Your task to perform on an android device: open the mobile data screen to see how much data has been used Image 0: 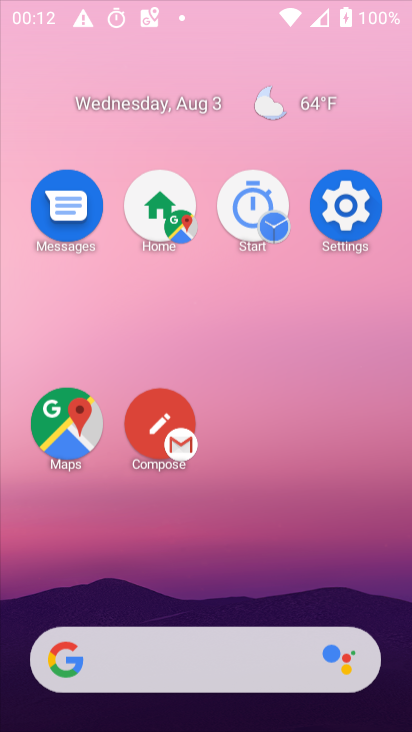
Step 0: click (232, 133)
Your task to perform on an android device: open the mobile data screen to see how much data has been used Image 1: 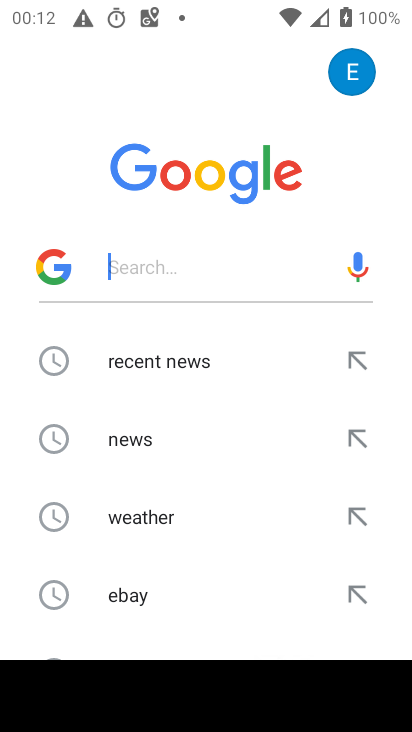
Step 1: press back button
Your task to perform on an android device: open the mobile data screen to see how much data has been used Image 2: 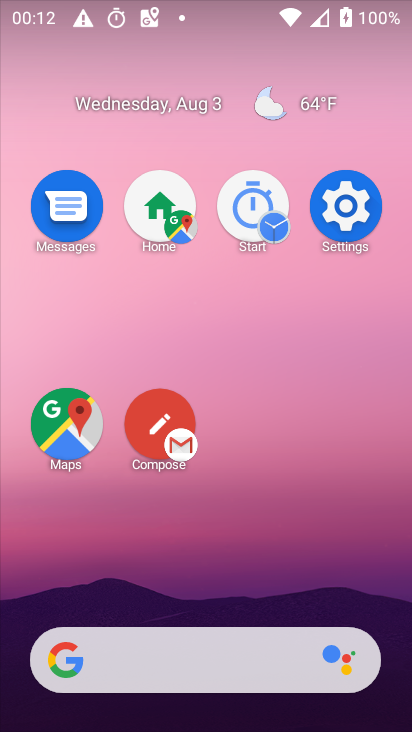
Step 2: click (350, 212)
Your task to perform on an android device: open the mobile data screen to see how much data has been used Image 3: 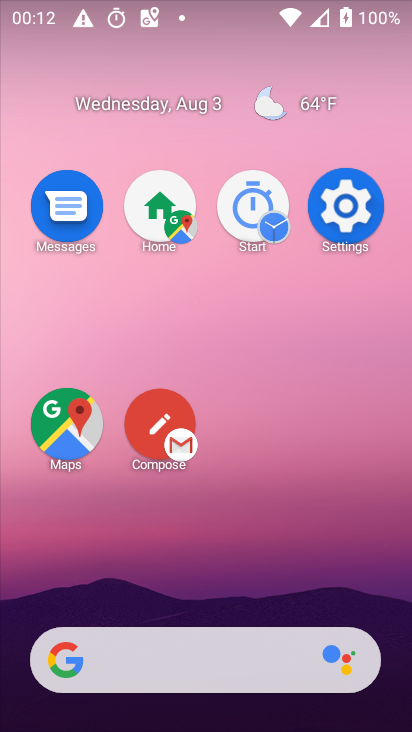
Step 3: click (348, 212)
Your task to perform on an android device: open the mobile data screen to see how much data has been used Image 4: 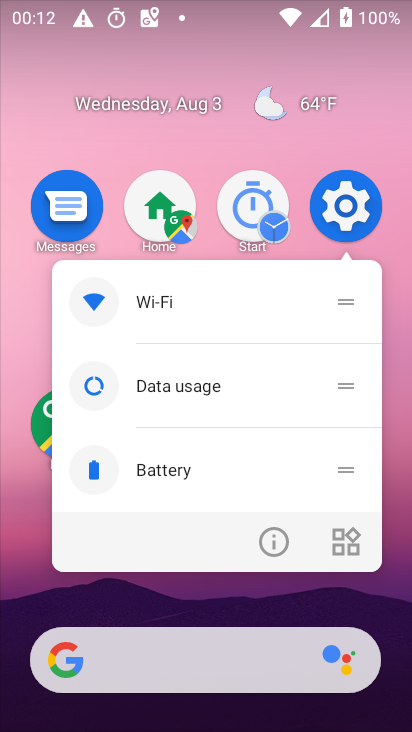
Step 4: click (336, 199)
Your task to perform on an android device: open the mobile data screen to see how much data has been used Image 5: 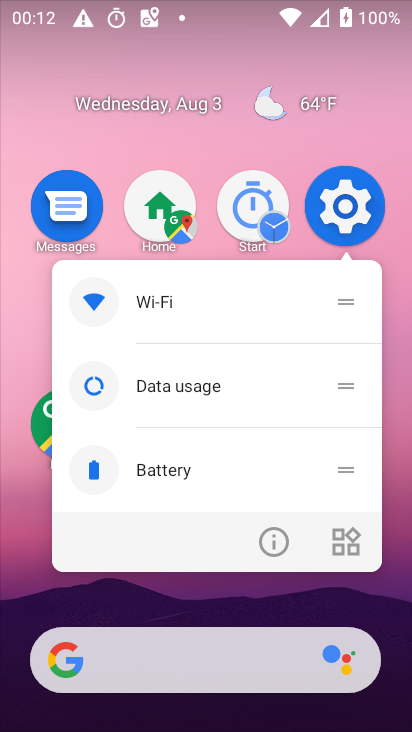
Step 5: click (343, 199)
Your task to perform on an android device: open the mobile data screen to see how much data has been used Image 6: 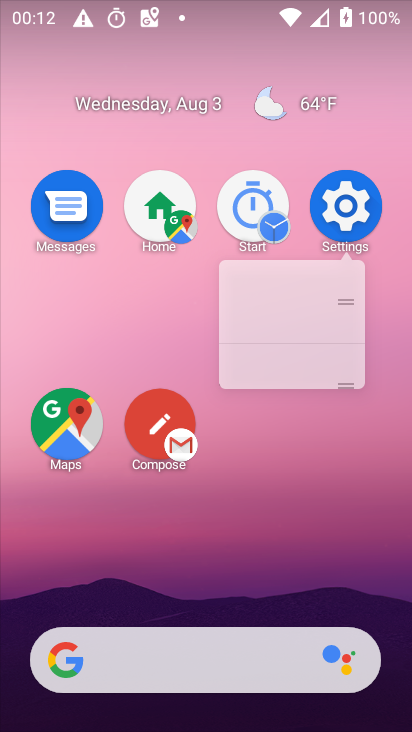
Step 6: click (346, 199)
Your task to perform on an android device: open the mobile data screen to see how much data has been used Image 7: 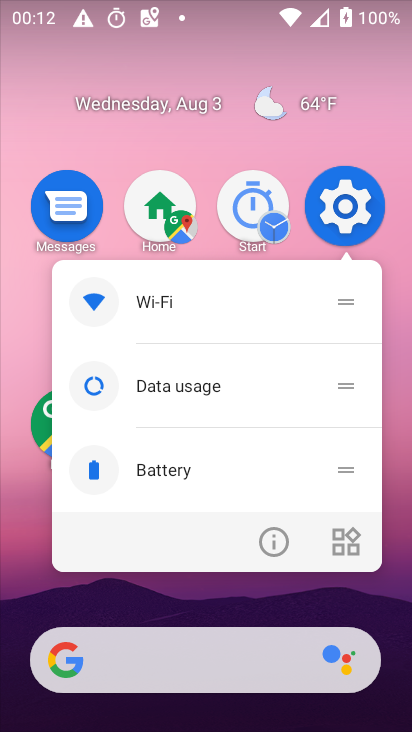
Step 7: click (358, 189)
Your task to perform on an android device: open the mobile data screen to see how much data has been used Image 8: 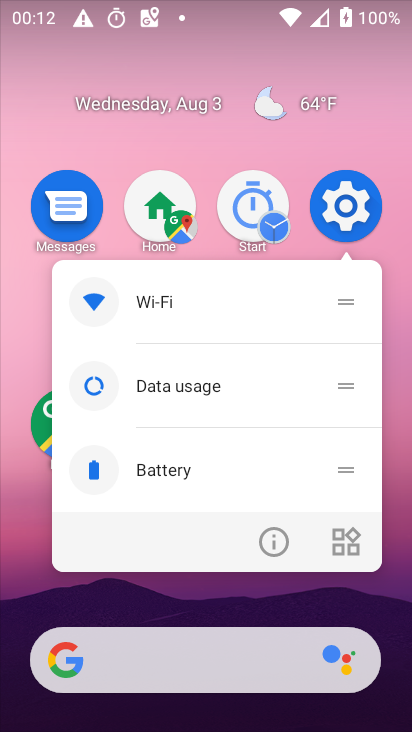
Step 8: drag from (358, 175) to (348, 216)
Your task to perform on an android device: open the mobile data screen to see how much data has been used Image 9: 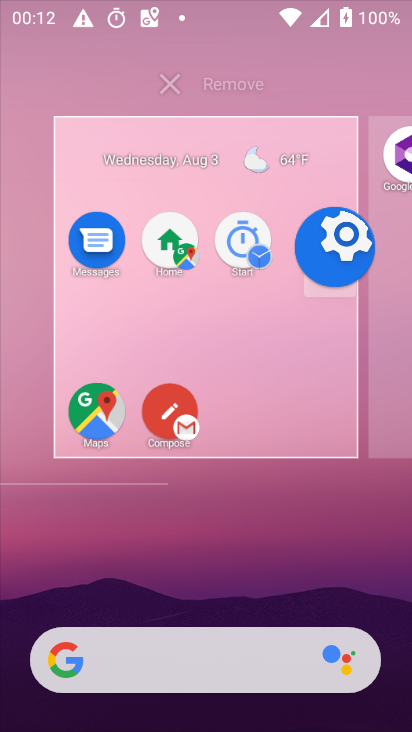
Step 9: click (346, 210)
Your task to perform on an android device: open the mobile data screen to see how much data has been used Image 10: 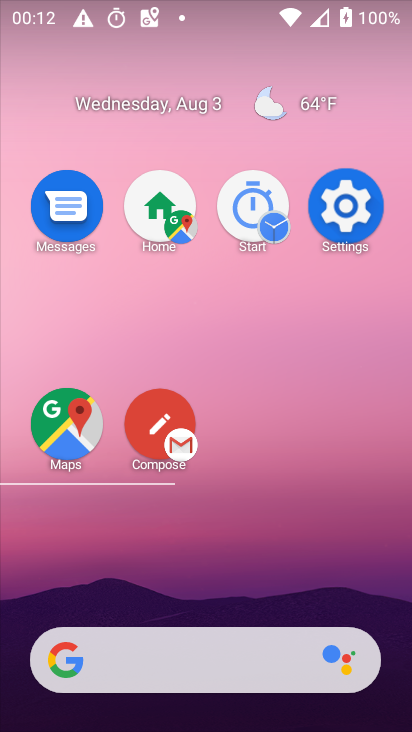
Step 10: click (355, 214)
Your task to perform on an android device: open the mobile data screen to see how much data has been used Image 11: 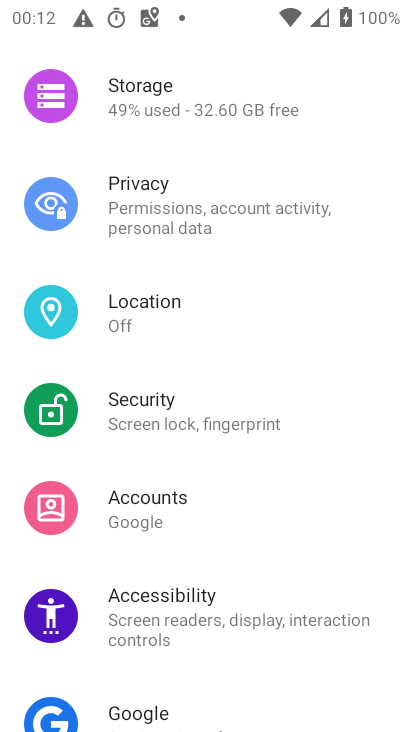
Step 11: drag from (148, 231) to (192, 485)
Your task to perform on an android device: open the mobile data screen to see how much data has been used Image 12: 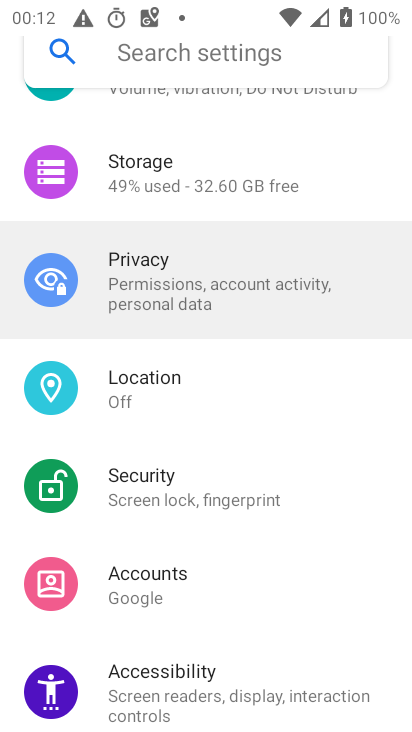
Step 12: drag from (167, 512) to (173, 556)
Your task to perform on an android device: open the mobile data screen to see how much data has been used Image 13: 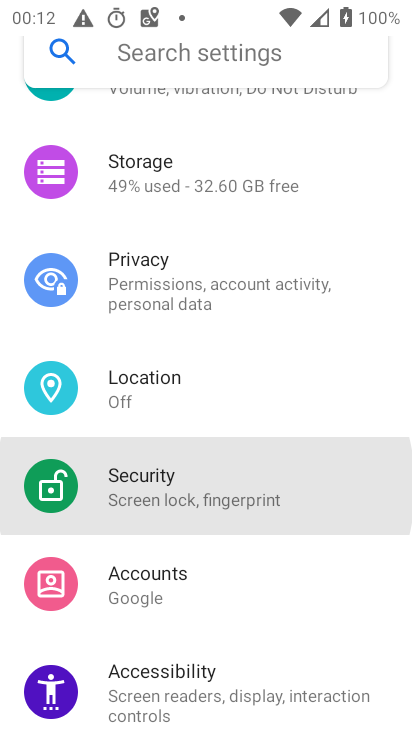
Step 13: drag from (129, 394) to (175, 517)
Your task to perform on an android device: open the mobile data screen to see how much data has been used Image 14: 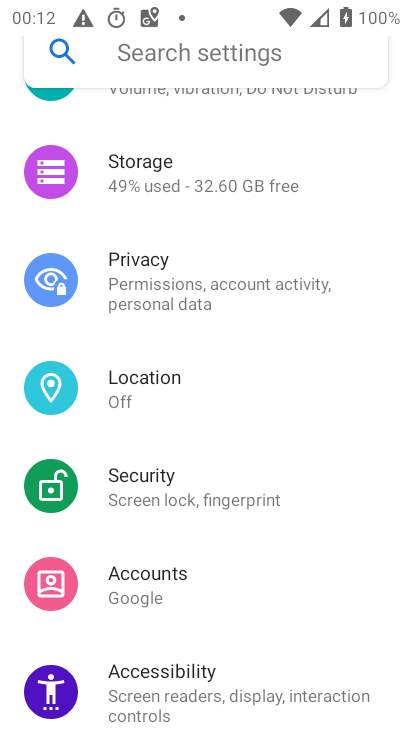
Step 14: drag from (168, 216) to (215, 436)
Your task to perform on an android device: open the mobile data screen to see how much data has been used Image 15: 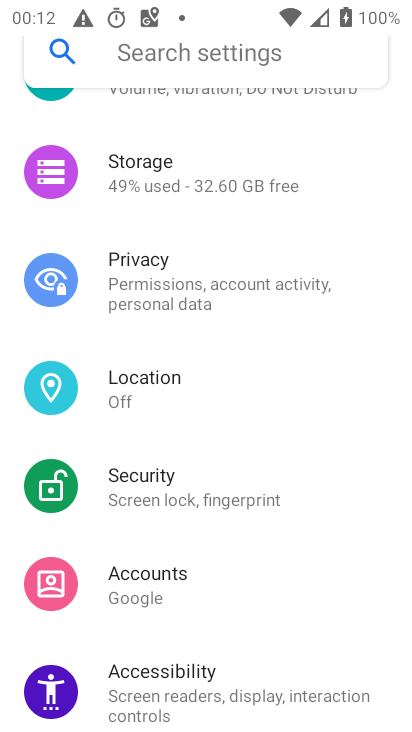
Step 15: drag from (117, 198) to (175, 562)
Your task to perform on an android device: open the mobile data screen to see how much data has been used Image 16: 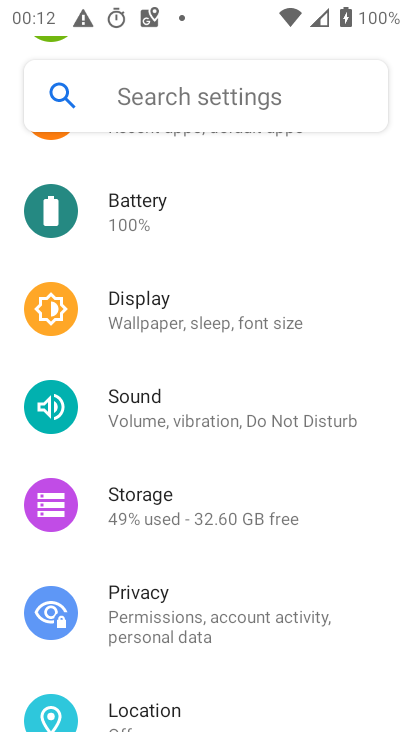
Step 16: drag from (151, 312) to (177, 463)
Your task to perform on an android device: open the mobile data screen to see how much data has been used Image 17: 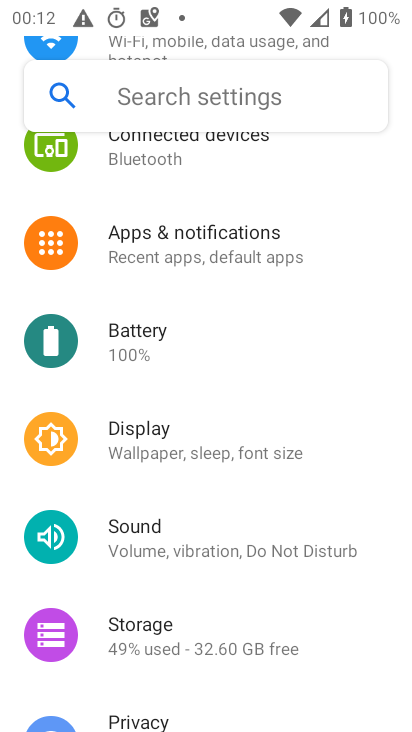
Step 17: drag from (142, 247) to (149, 298)
Your task to perform on an android device: open the mobile data screen to see how much data has been used Image 18: 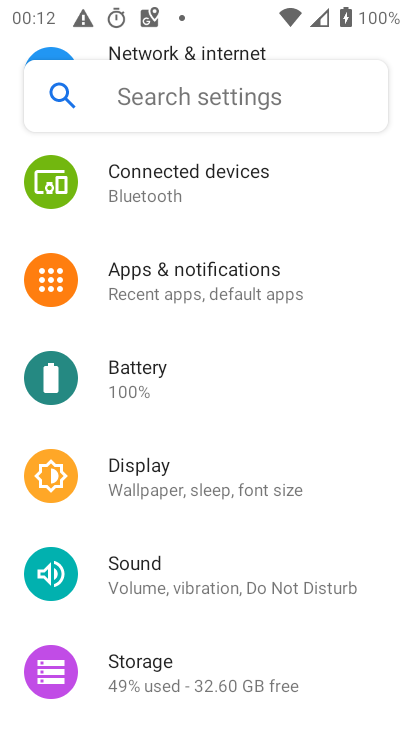
Step 18: drag from (141, 164) to (154, 717)
Your task to perform on an android device: open the mobile data screen to see how much data has been used Image 19: 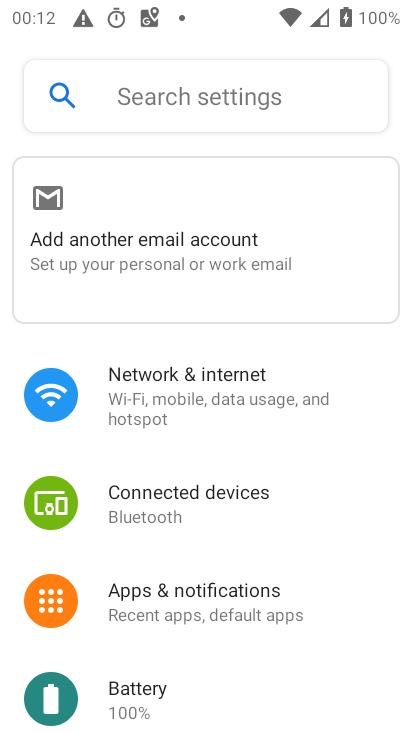
Step 19: click (167, 411)
Your task to perform on an android device: open the mobile data screen to see how much data has been used Image 20: 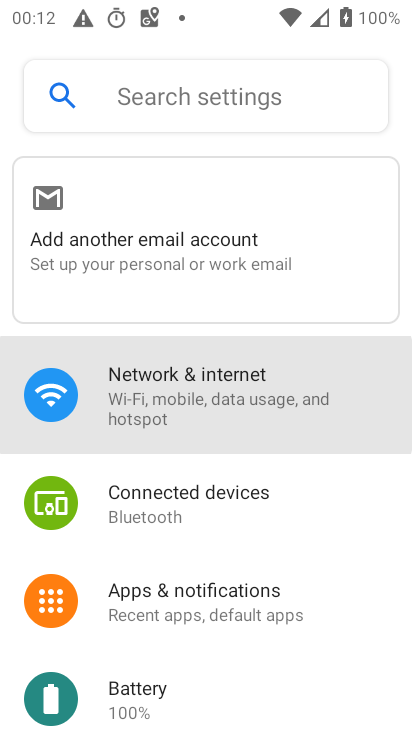
Step 20: click (166, 415)
Your task to perform on an android device: open the mobile data screen to see how much data has been used Image 21: 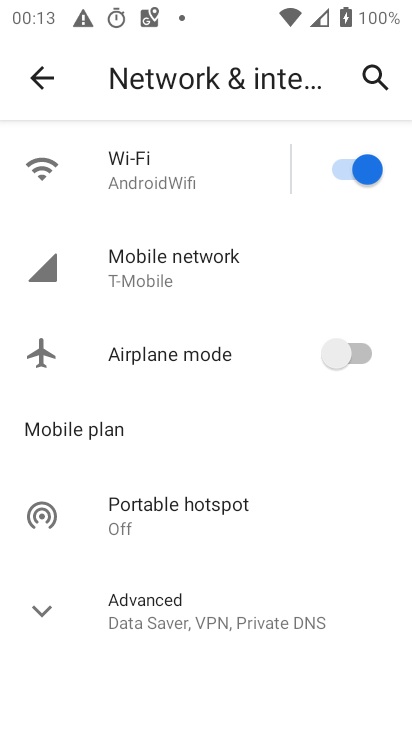
Step 21: click (121, 274)
Your task to perform on an android device: open the mobile data screen to see how much data has been used Image 22: 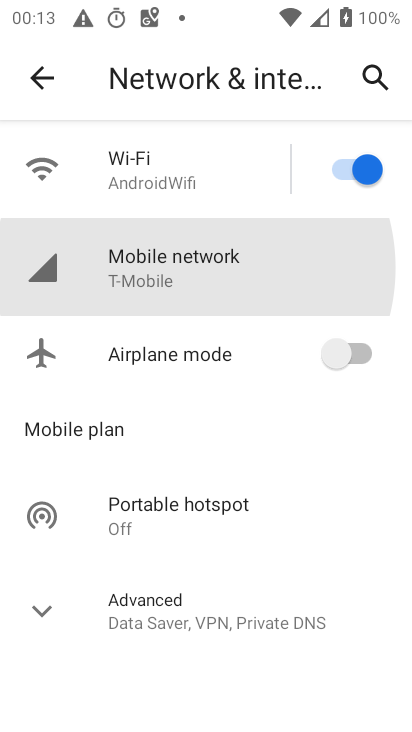
Step 22: click (120, 273)
Your task to perform on an android device: open the mobile data screen to see how much data has been used Image 23: 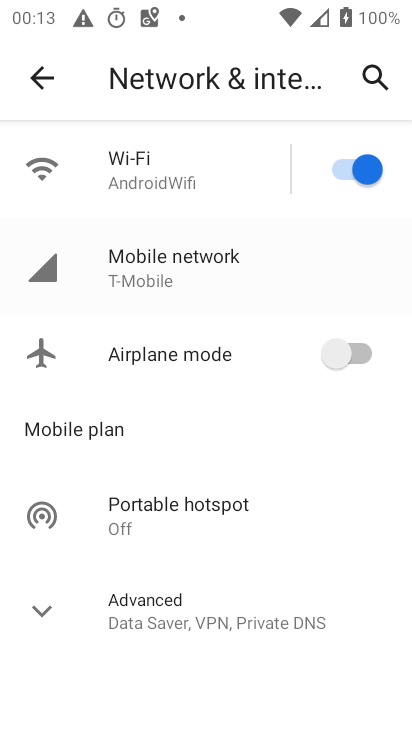
Step 23: click (121, 274)
Your task to perform on an android device: open the mobile data screen to see how much data has been used Image 24: 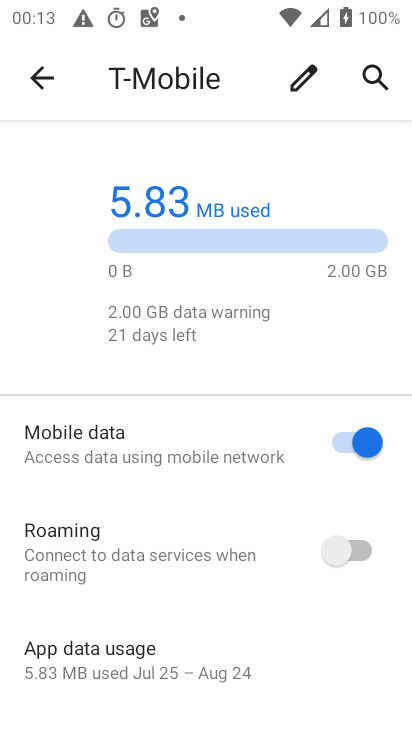
Step 24: task complete